Your task to perform on an android device: turn on data saver in the chrome app Image 0: 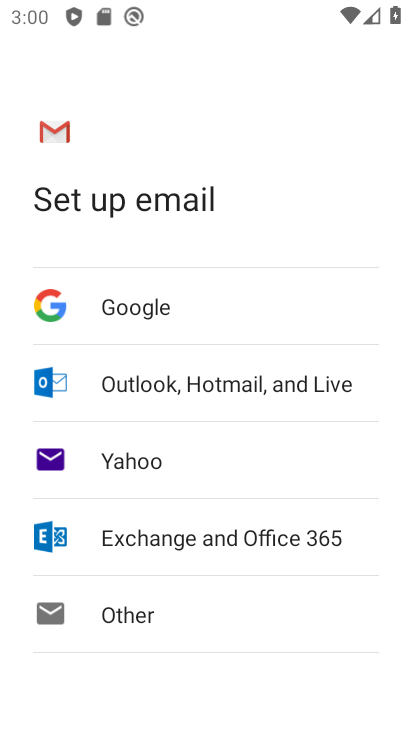
Step 0: press home button
Your task to perform on an android device: turn on data saver in the chrome app Image 1: 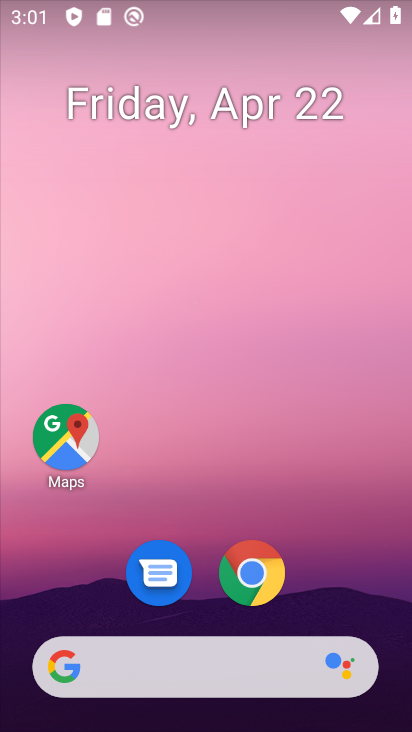
Step 1: click (261, 578)
Your task to perform on an android device: turn on data saver in the chrome app Image 2: 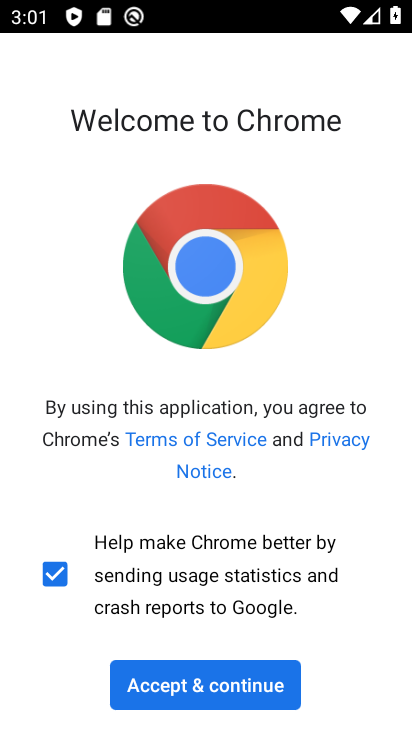
Step 2: click (218, 684)
Your task to perform on an android device: turn on data saver in the chrome app Image 3: 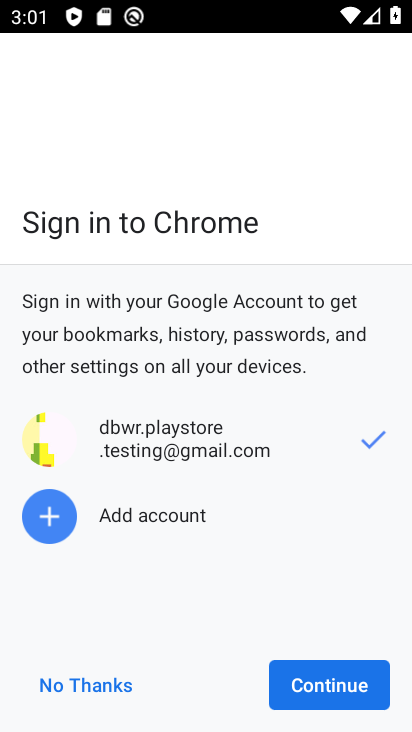
Step 3: click (321, 683)
Your task to perform on an android device: turn on data saver in the chrome app Image 4: 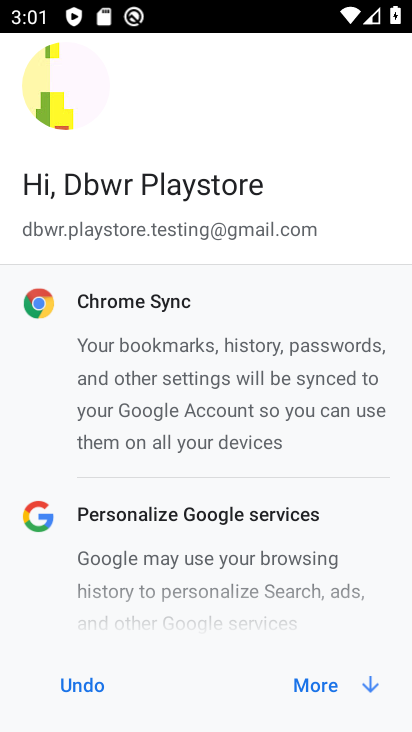
Step 4: click (321, 683)
Your task to perform on an android device: turn on data saver in the chrome app Image 5: 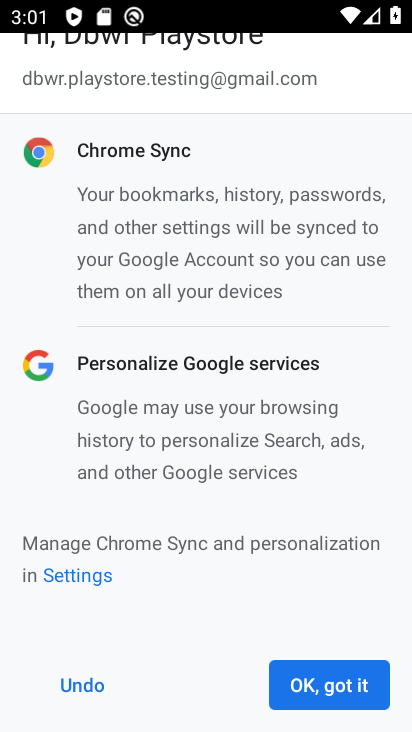
Step 5: click (321, 683)
Your task to perform on an android device: turn on data saver in the chrome app Image 6: 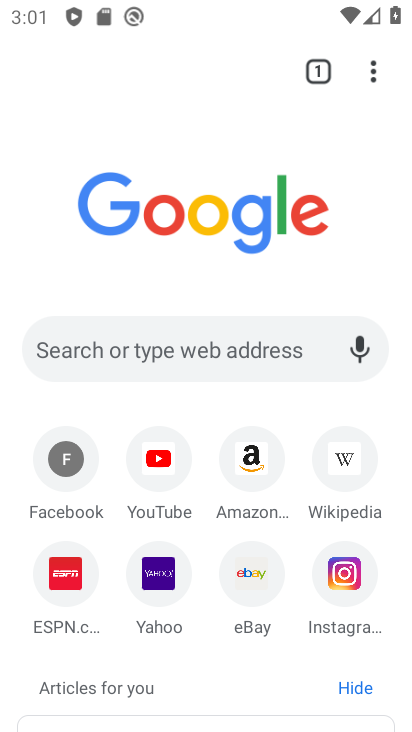
Step 6: click (369, 57)
Your task to perform on an android device: turn on data saver in the chrome app Image 7: 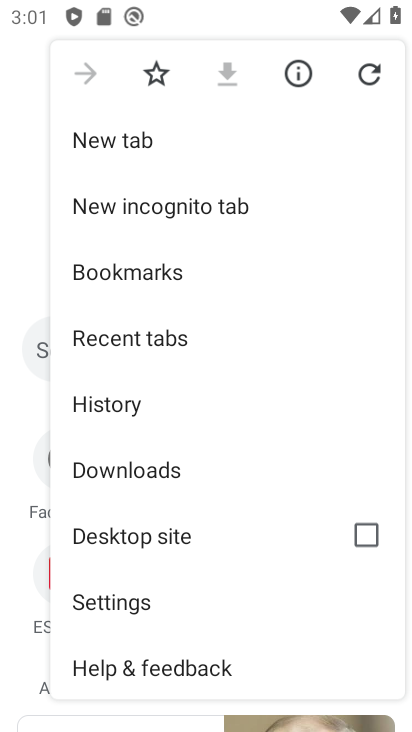
Step 7: drag from (213, 494) to (243, 155)
Your task to perform on an android device: turn on data saver in the chrome app Image 8: 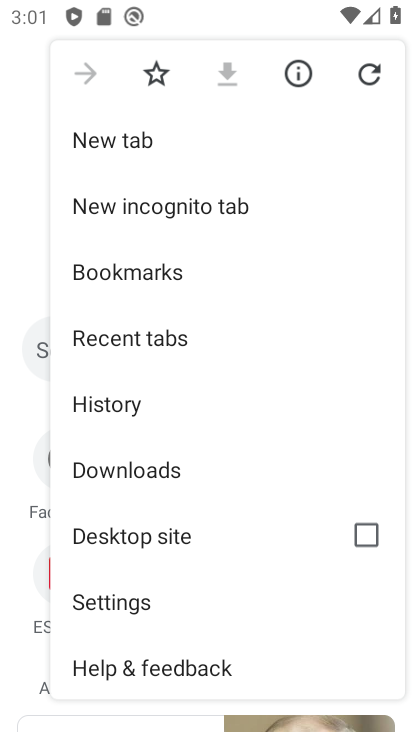
Step 8: click (135, 607)
Your task to perform on an android device: turn on data saver in the chrome app Image 9: 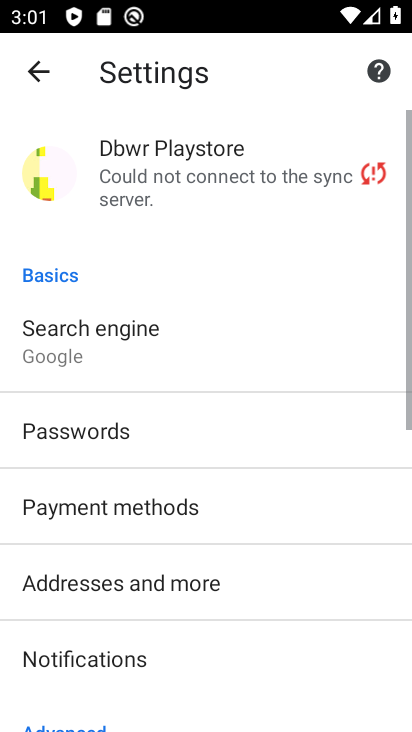
Step 9: drag from (177, 579) to (217, 133)
Your task to perform on an android device: turn on data saver in the chrome app Image 10: 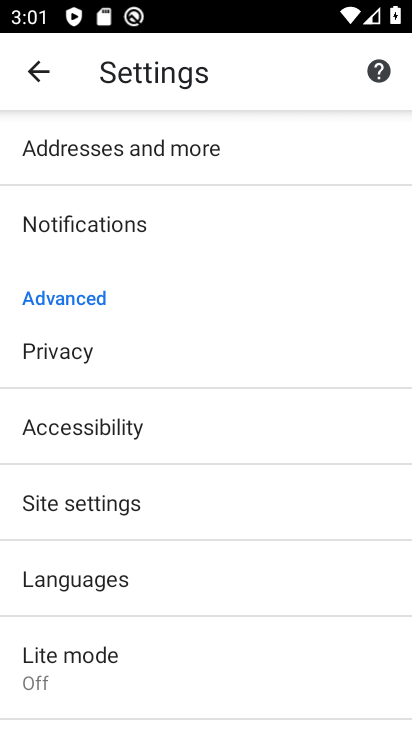
Step 10: click (151, 642)
Your task to perform on an android device: turn on data saver in the chrome app Image 11: 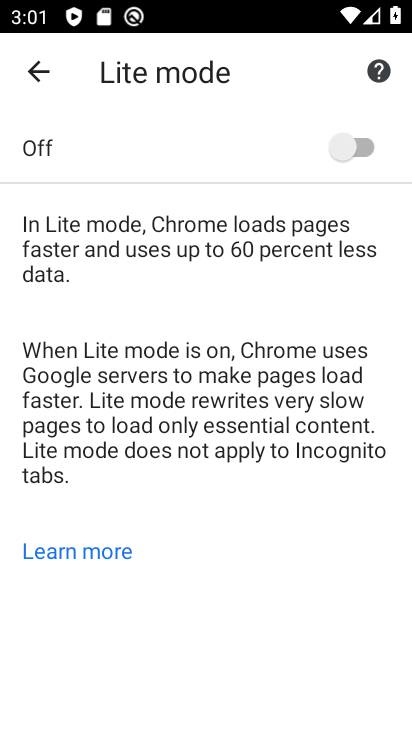
Step 11: click (360, 138)
Your task to perform on an android device: turn on data saver in the chrome app Image 12: 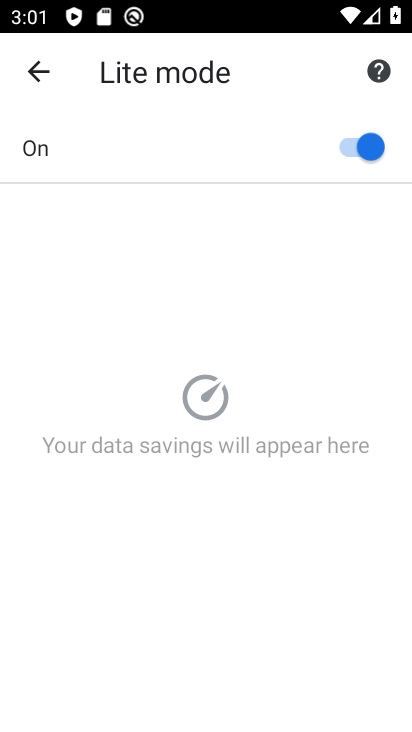
Step 12: task complete